Your task to perform on an android device: Go to privacy settings Image 0: 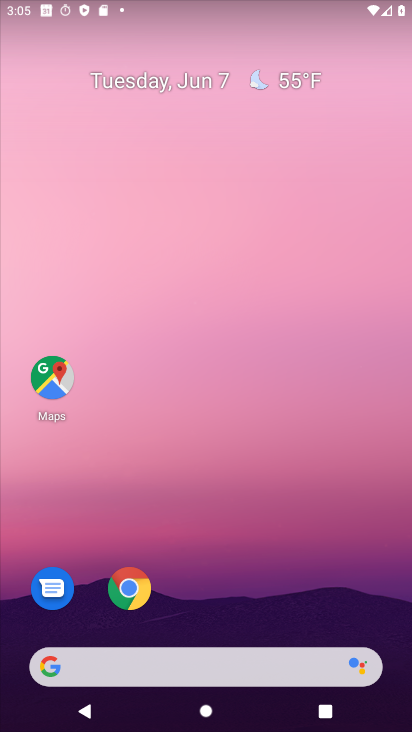
Step 0: press home button
Your task to perform on an android device: Go to privacy settings Image 1: 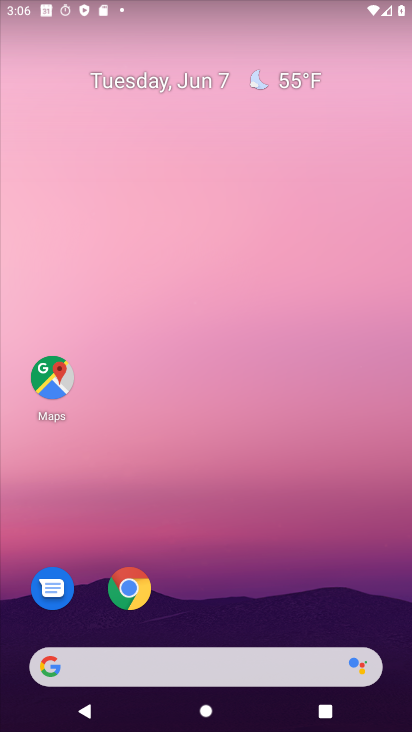
Step 1: drag from (213, 625) to (191, 51)
Your task to perform on an android device: Go to privacy settings Image 2: 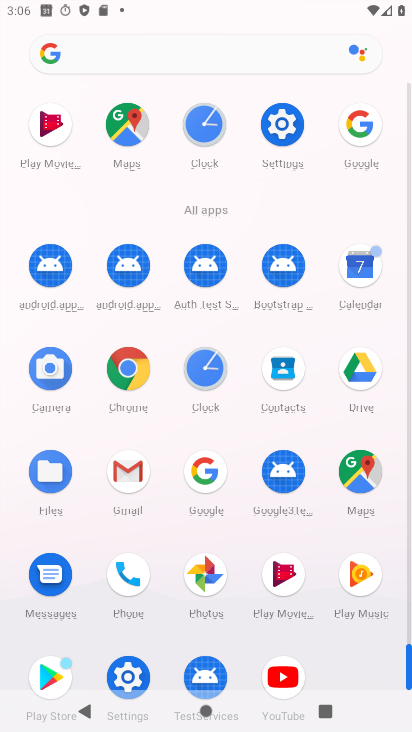
Step 2: click (284, 140)
Your task to perform on an android device: Go to privacy settings Image 3: 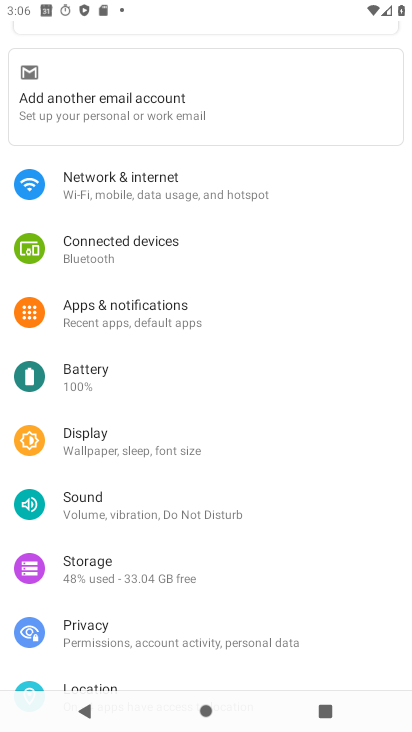
Step 3: click (105, 641)
Your task to perform on an android device: Go to privacy settings Image 4: 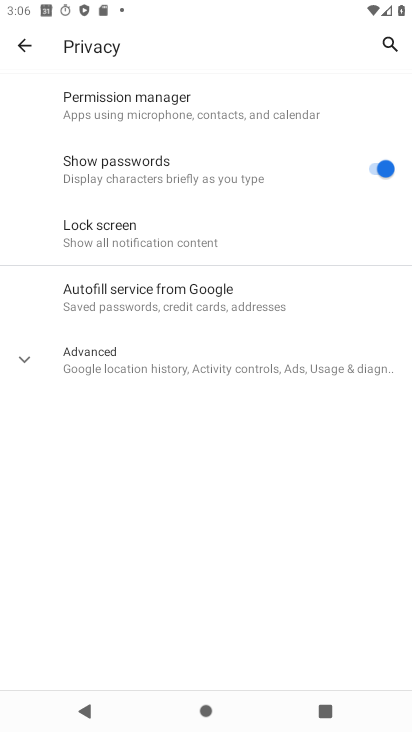
Step 4: task complete